Your task to perform on an android device: create a new album in the google photos Image 0: 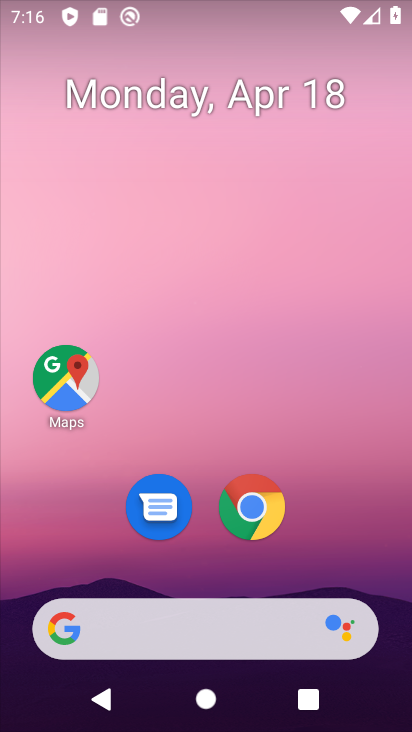
Step 0: drag from (34, 690) to (142, 126)
Your task to perform on an android device: create a new album in the google photos Image 1: 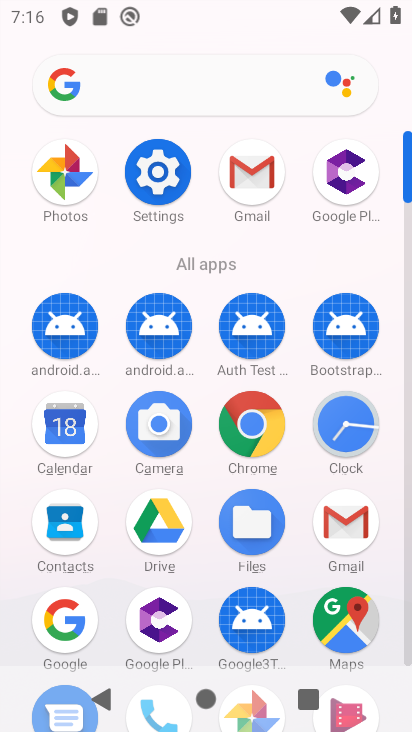
Step 1: click (406, 661)
Your task to perform on an android device: create a new album in the google photos Image 2: 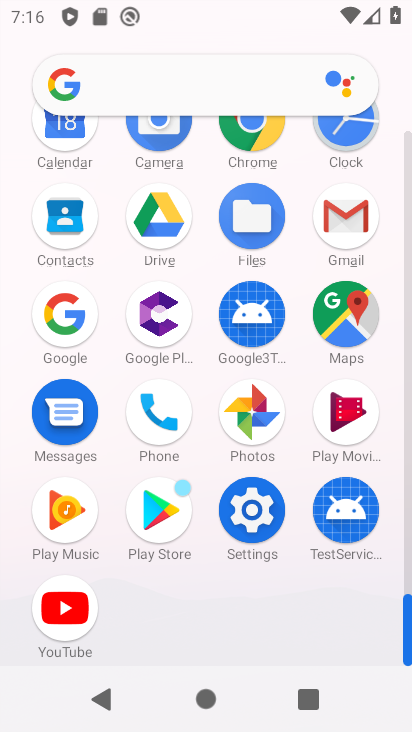
Step 2: click (252, 414)
Your task to perform on an android device: create a new album in the google photos Image 3: 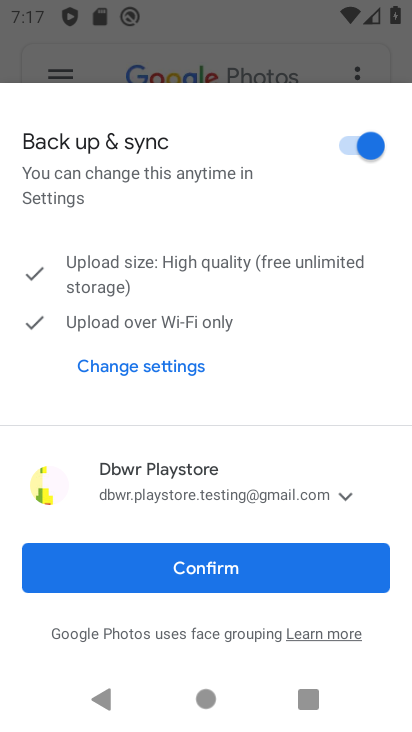
Step 3: click (229, 562)
Your task to perform on an android device: create a new album in the google photos Image 4: 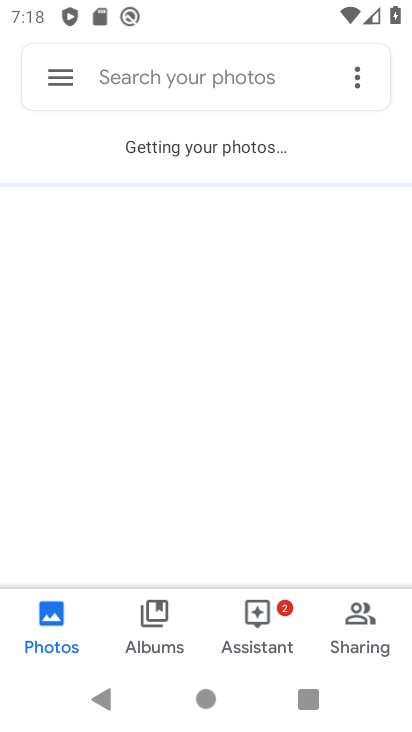
Step 4: task complete